Your task to perform on an android device: Find coffee shops on Maps Image 0: 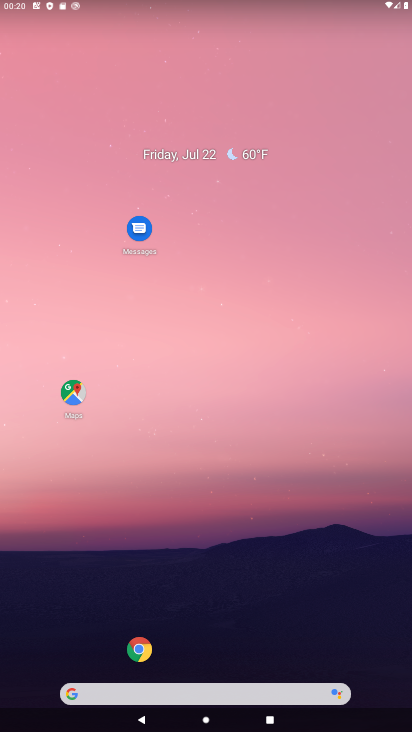
Step 0: click (70, 395)
Your task to perform on an android device: Find coffee shops on Maps Image 1: 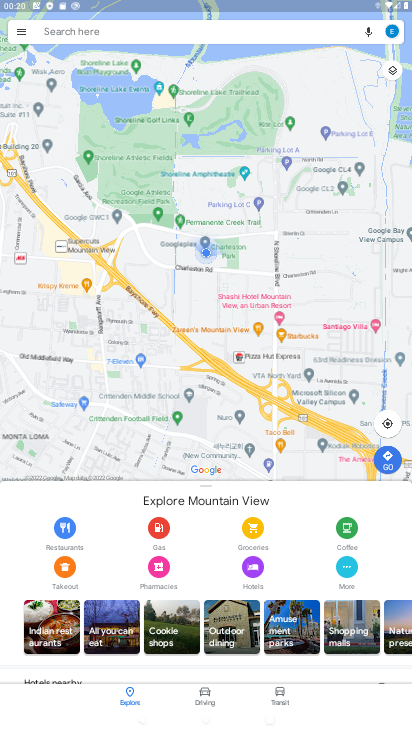
Step 1: click (61, 31)
Your task to perform on an android device: Find coffee shops on Maps Image 2: 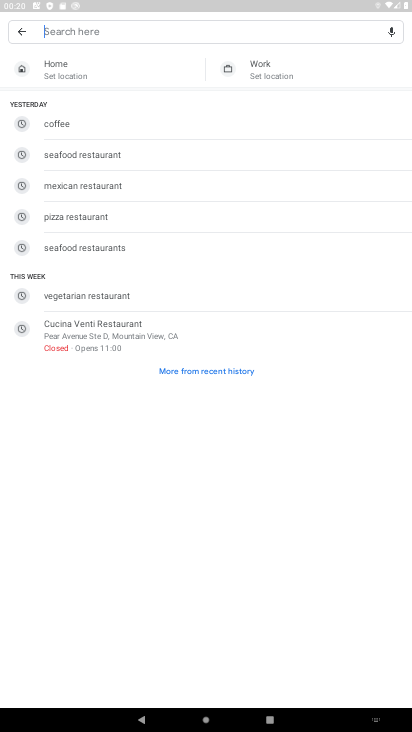
Step 2: click (53, 128)
Your task to perform on an android device: Find coffee shops on Maps Image 3: 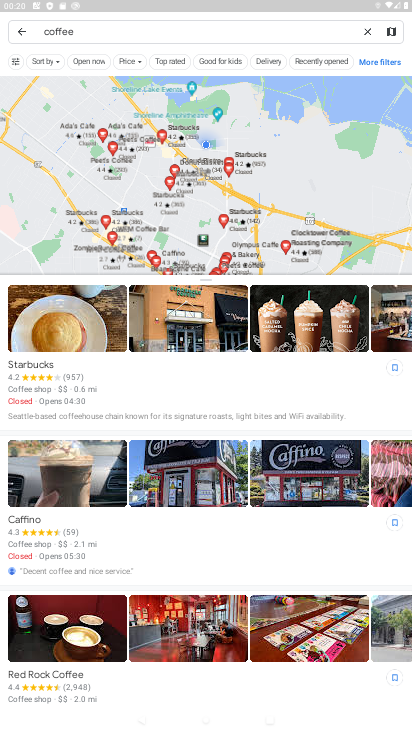
Step 3: task complete